Your task to perform on an android device: Open internet settings Image 0: 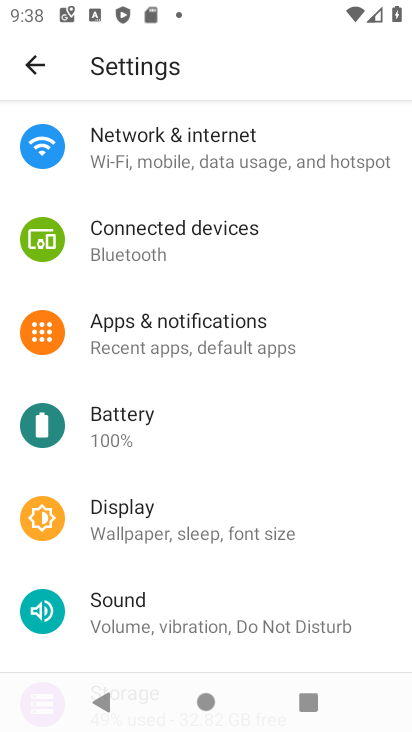
Step 0: press home button
Your task to perform on an android device: Open internet settings Image 1: 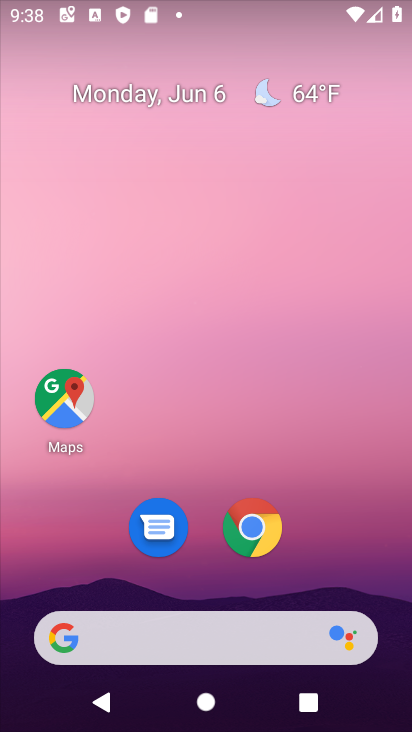
Step 1: drag from (174, 551) to (289, 95)
Your task to perform on an android device: Open internet settings Image 2: 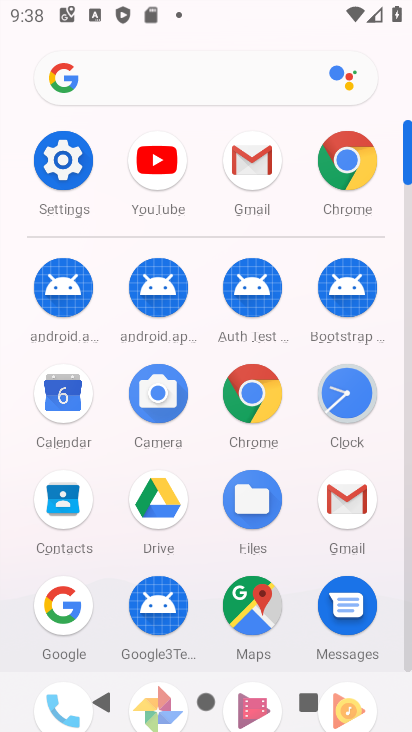
Step 2: click (83, 198)
Your task to perform on an android device: Open internet settings Image 3: 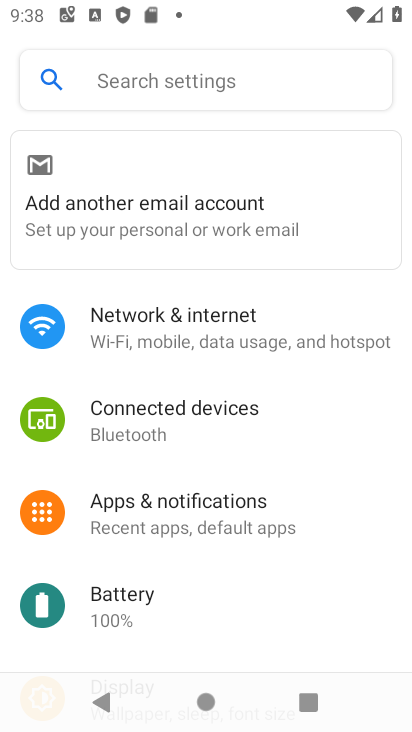
Step 3: click (169, 328)
Your task to perform on an android device: Open internet settings Image 4: 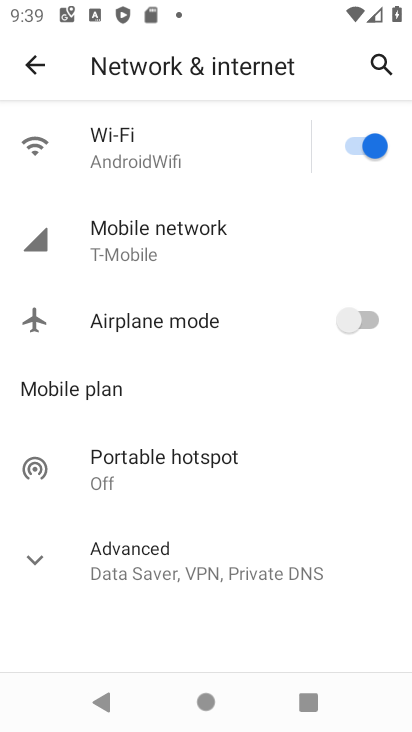
Step 4: click (248, 231)
Your task to perform on an android device: Open internet settings Image 5: 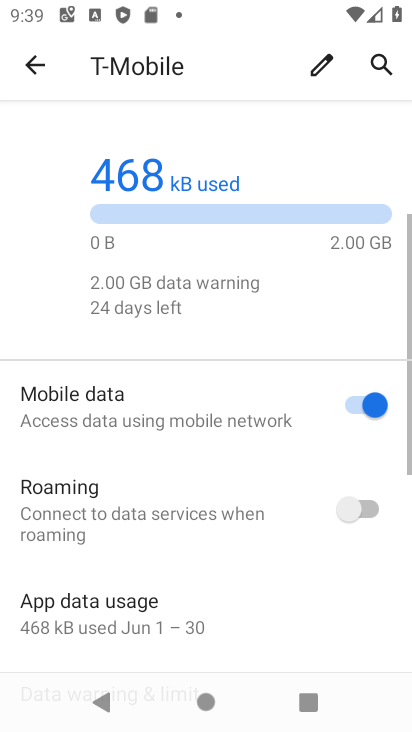
Step 5: click (141, 241)
Your task to perform on an android device: Open internet settings Image 6: 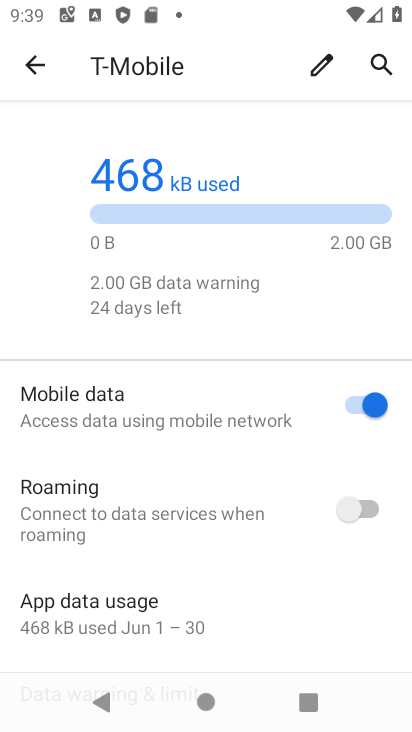
Step 6: task complete